Your task to perform on an android device: What's the weather going to be this weekend? Image 0: 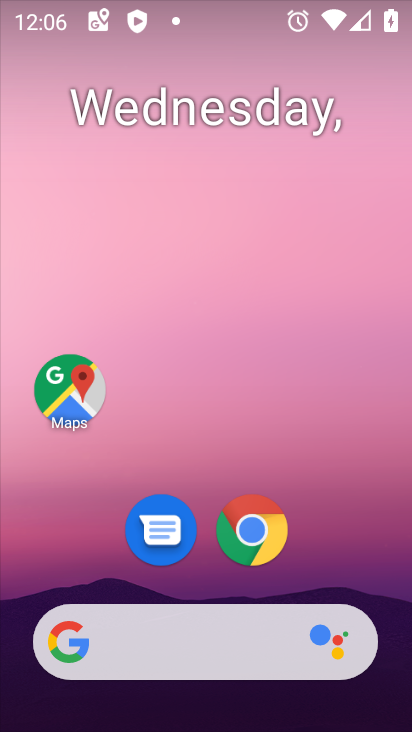
Step 0: click (253, 534)
Your task to perform on an android device: What's the weather going to be this weekend? Image 1: 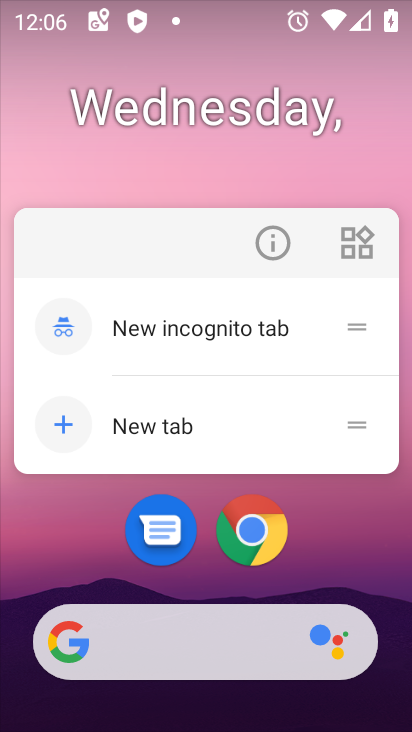
Step 1: click (267, 240)
Your task to perform on an android device: What's the weather going to be this weekend? Image 2: 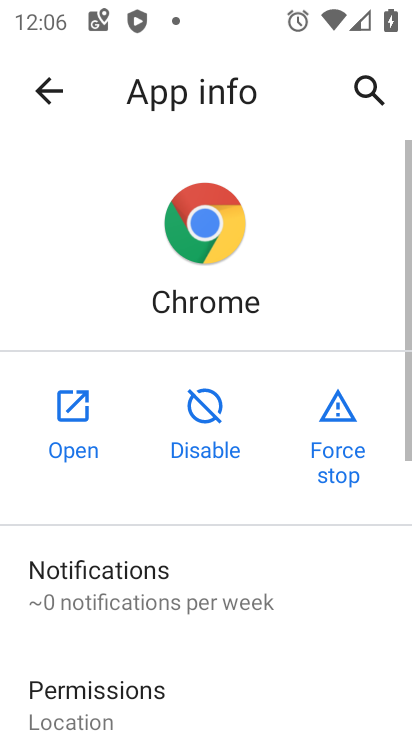
Step 2: click (72, 428)
Your task to perform on an android device: What's the weather going to be this weekend? Image 3: 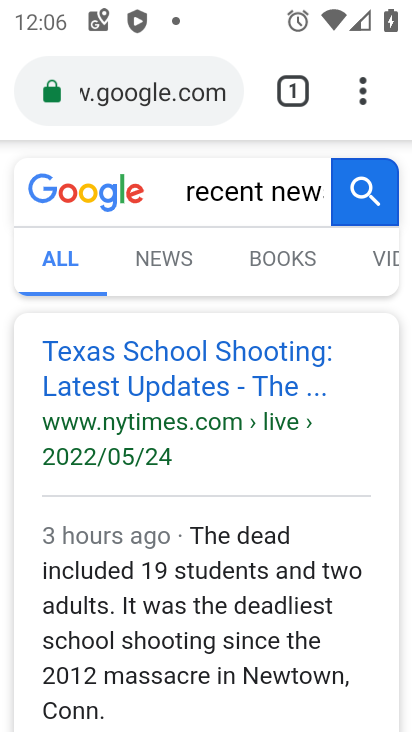
Step 3: click (138, 103)
Your task to perform on an android device: What's the weather going to be this weekend? Image 4: 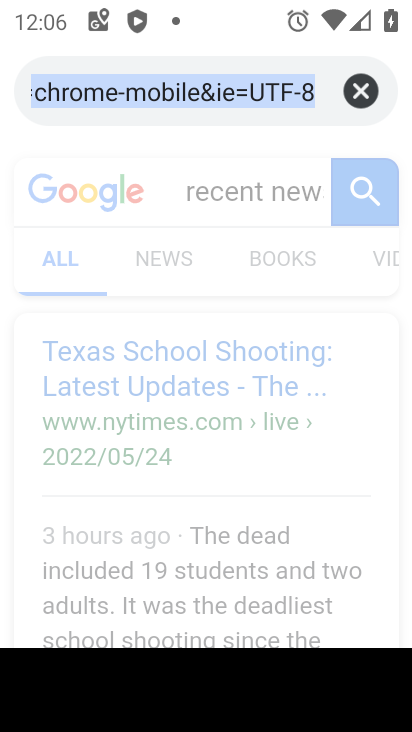
Step 4: type "hat's the weather going to be this weekend?"
Your task to perform on an android device: What's the weather going to be this weekend? Image 5: 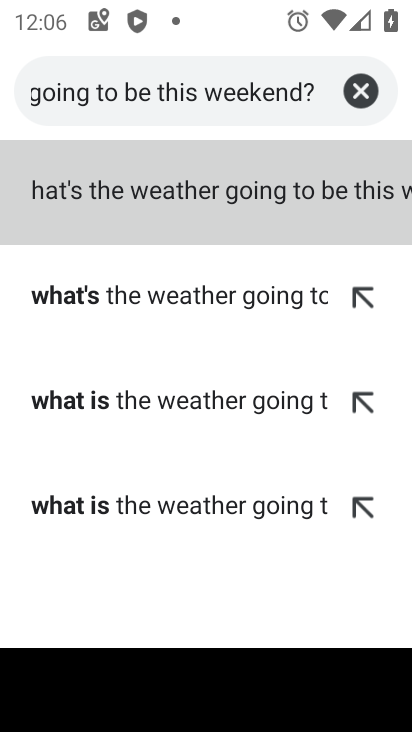
Step 5: click (150, 202)
Your task to perform on an android device: What's the weather going to be this weekend? Image 6: 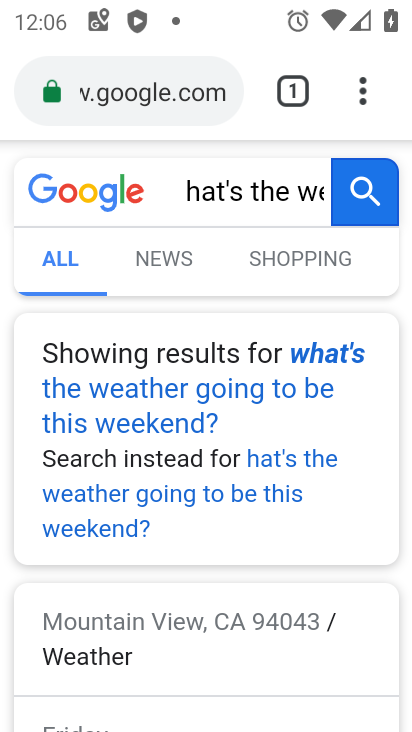
Step 6: task complete